Your task to perform on an android device: Go to Amazon Image 0: 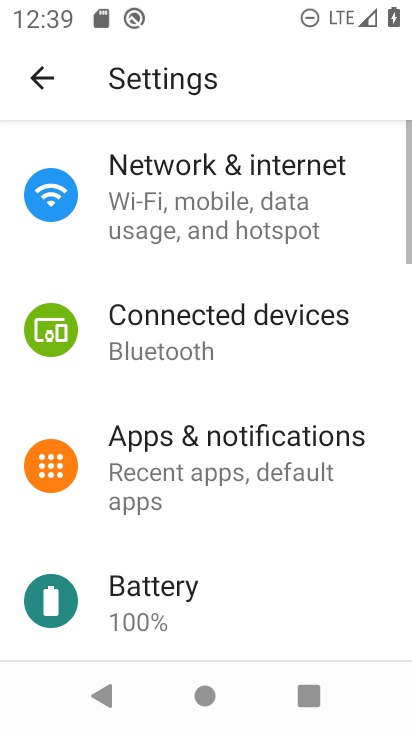
Step 0: press home button
Your task to perform on an android device: Go to Amazon Image 1: 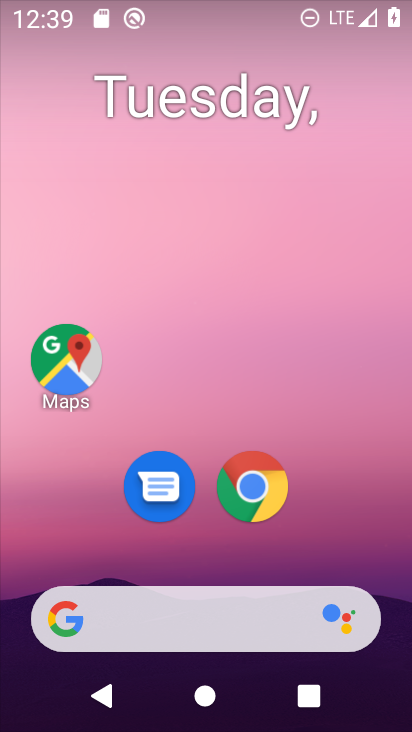
Step 1: drag from (174, 508) to (220, 150)
Your task to perform on an android device: Go to Amazon Image 2: 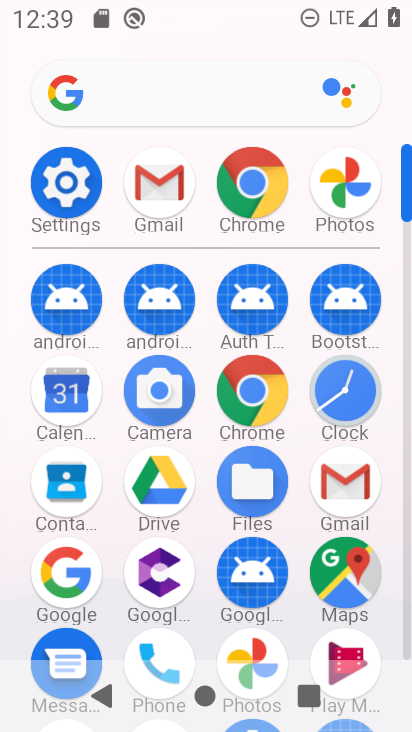
Step 2: click (259, 406)
Your task to perform on an android device: Go to Amazon Image 3: 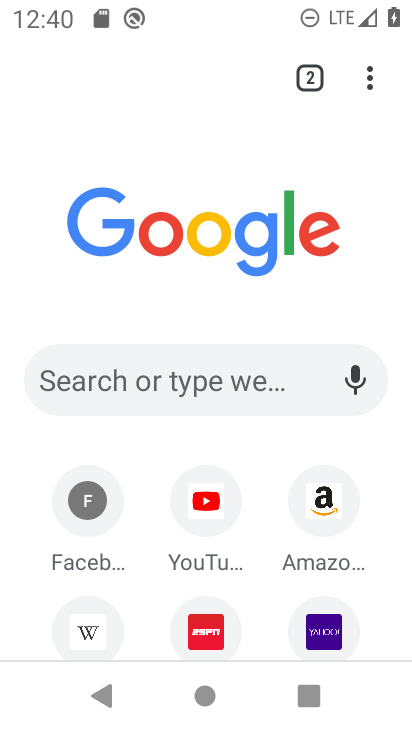
Step 3: click (338, 517)
Your task to perform on an android device: Go to Amazon Image 4: 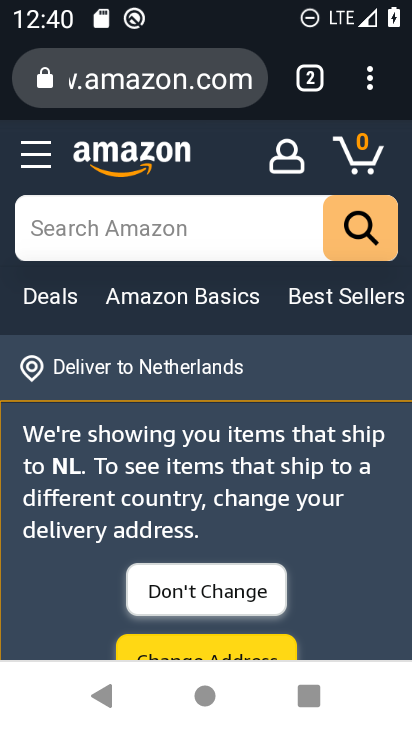
Step 4: task complete